Your task to perform on an android device: turn notification dots on Image 0: 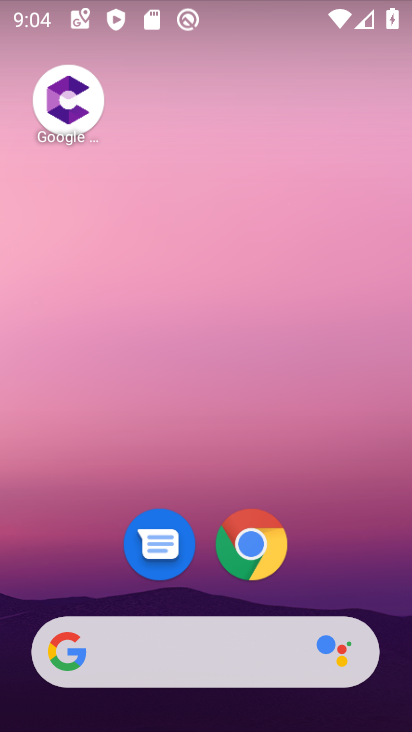
Step 0: drag from (209, 593) to (225, 190)
Your task to perform on an android device: turn notification dots on Image 1: 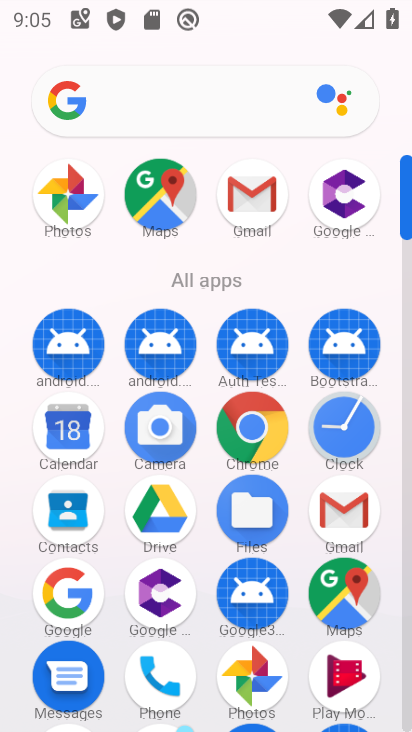
Step 1: drag from (208, 688) to (217, 272)
Your task to perform on an android device: turn notification dots on Image 2: 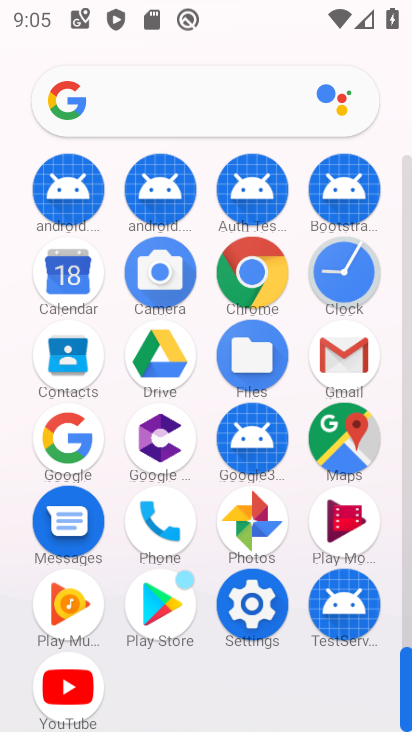
Step 2: click (251, 599)
Your task to perform on an android device: turn notification dots on Image 3: 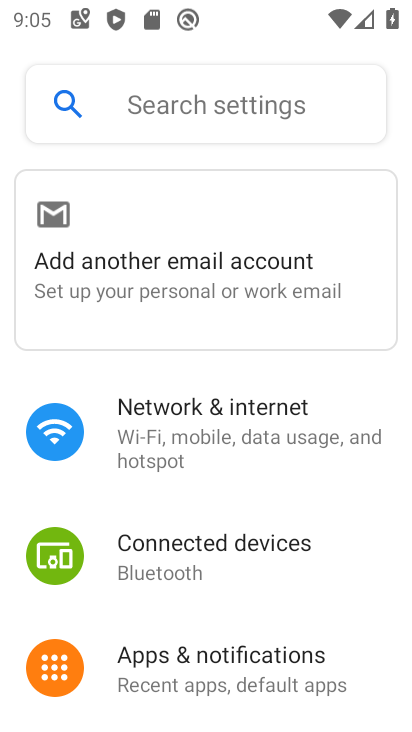
Step 3: click (158, 620)
Your task to perform on an android device: turn notification dots on Image 4: 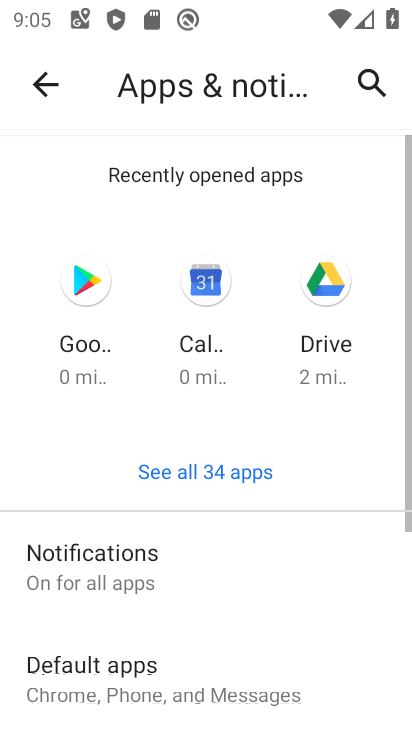
Step 4: click (111, 576)
Your task to perform on an android device: turn notification dots on Image 5: 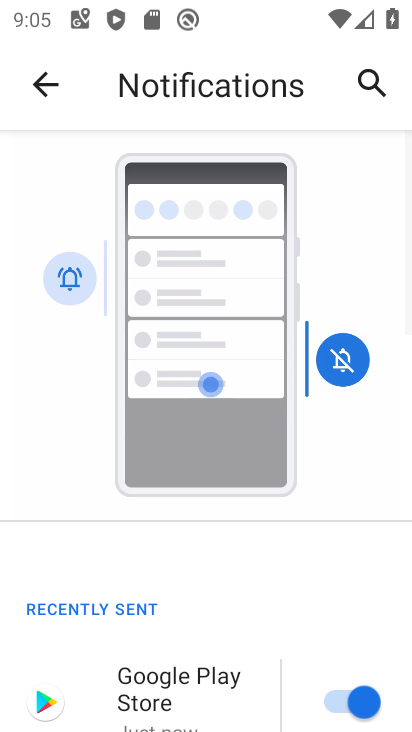
Step 5: drag from (172, 687) to (180, 115)
Your task to perform on an android device: turn notification dots on Image 6: 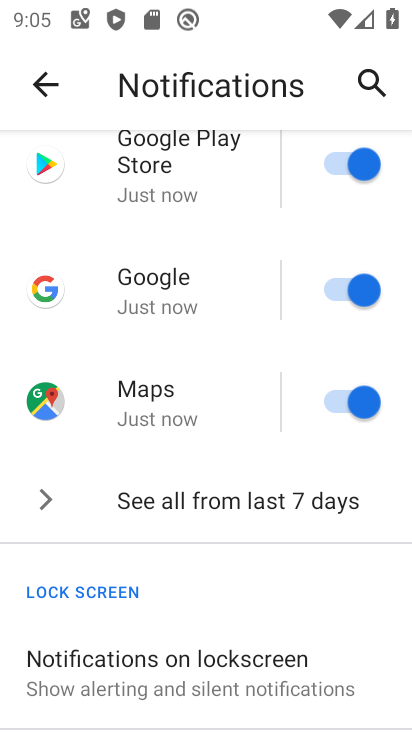
Step 6: drag from (167, 644) to (244, 239)
Your task to perform on an android device: turn notification dots on Image 7: 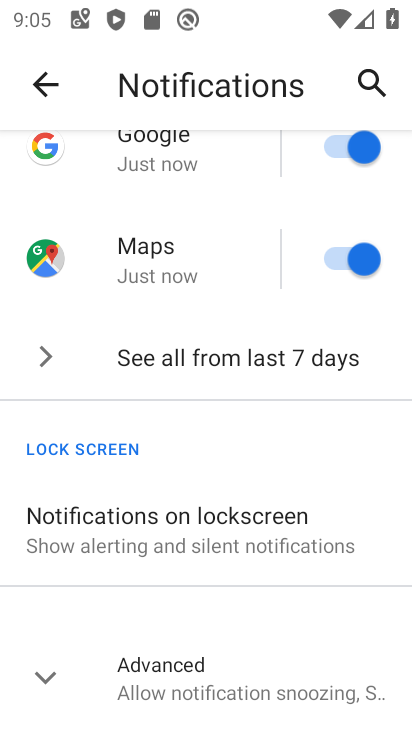
Step 7: click (159, 661)
Your task to perform on an android device: turn notification dots on Image 8: 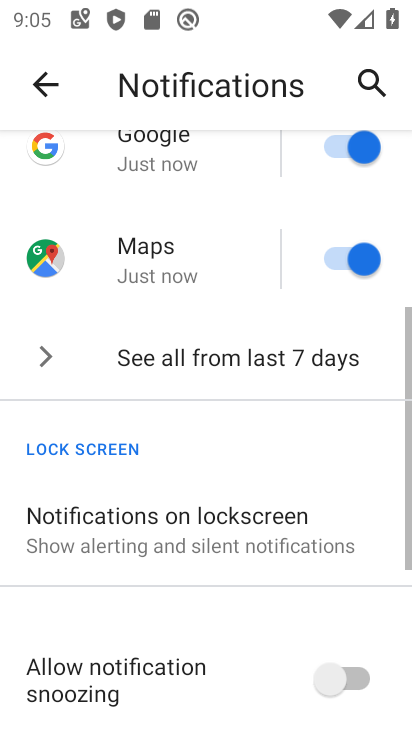
Step 8: task complete